Your task to perform on an android device: Open sound settings Image 0: 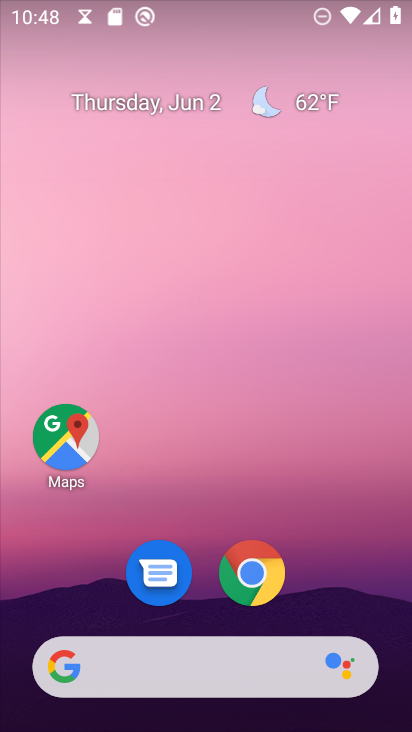
Step 0: drag from (344, 584) to (237, 167)
Your task to perform on an android device: Open sound settings Image 1: 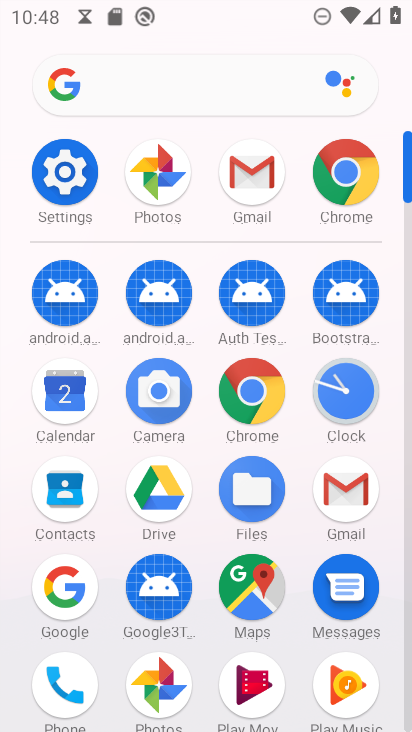
Step 1: click (67, 170)
Your task to perform on an android device: Open sound settings Image 2: 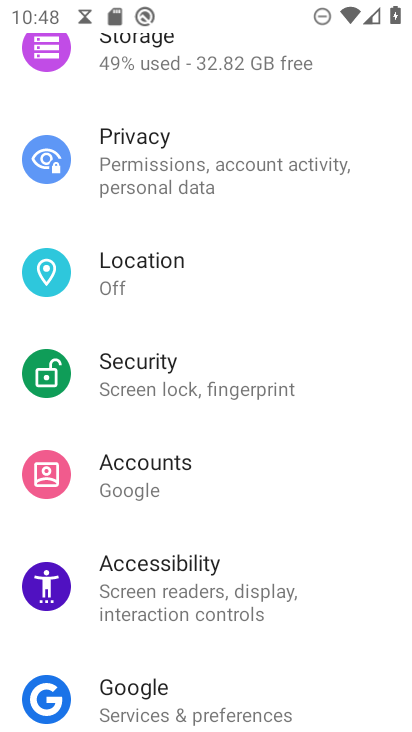
Step 2: drag from (166, 547) to (235, 422)
Your task to perform on an android device: Open sound settings Image 3: 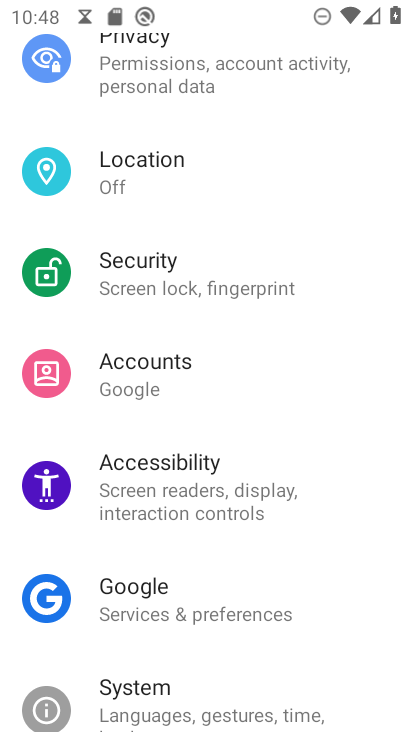
Step 3: drag from (222, 561) to (287, 406)
Your task to perform on an android device: Open sound settings Image 4: 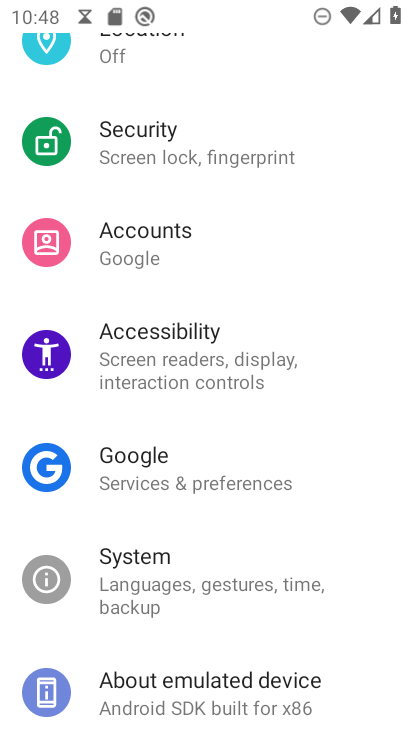
Step 4: drag from (255, 305) to (265, 413)
Your task to perform on an android device: Open sound settings Image 5: 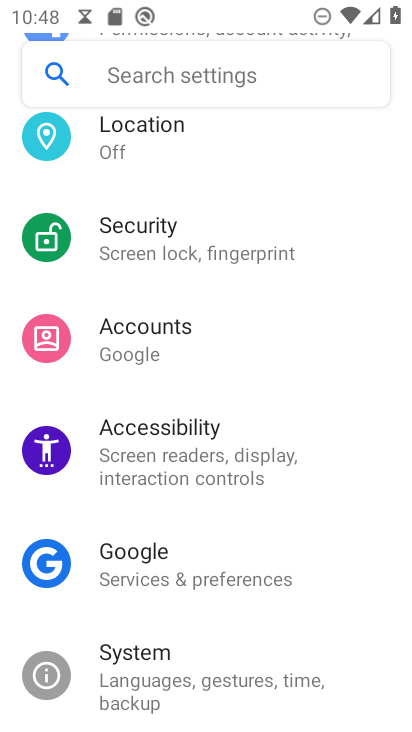
Step 5: drag from (234, 329) to (282, 432)
Your task to perform on an android device: Open sound settings Image 6: 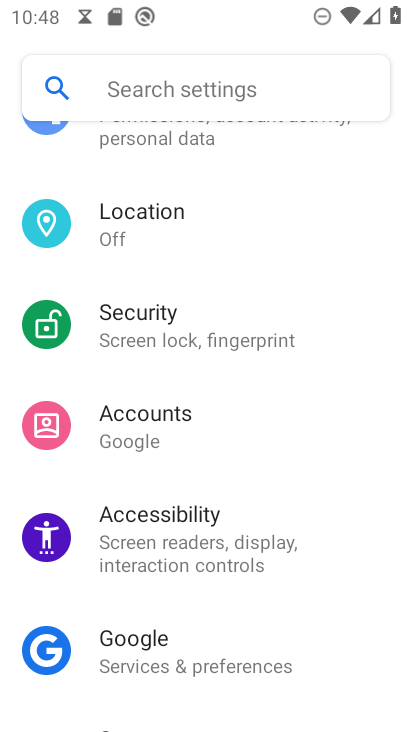
Step 6: drag from (222, 300) to (278, 404)
Your task to perform on an android device: Open sound settings Image 7: 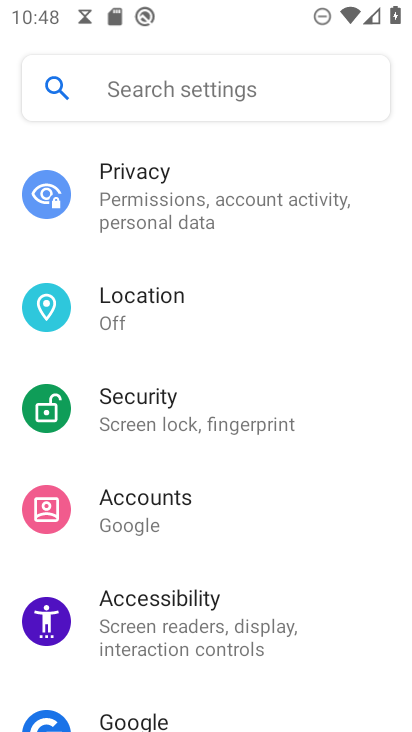
Step 7: drag from (228, 277) to (275, 394)
Your task to perform on an android device: Open sound settings Image 8: 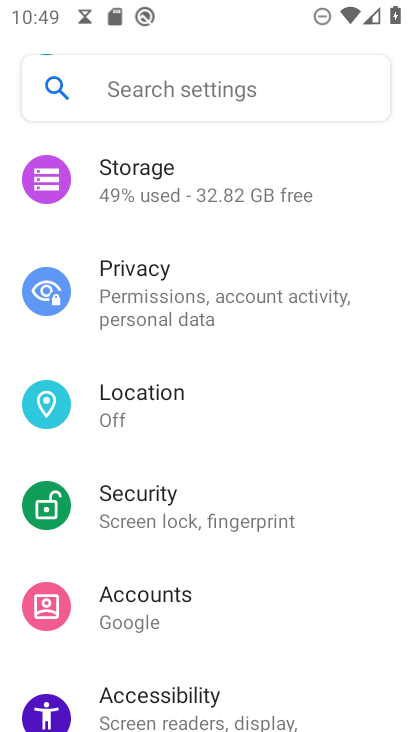
Step 8: drag from (218, 242) to (282, 365)
Your task to perform on an android device: Open sound settings Image 9: 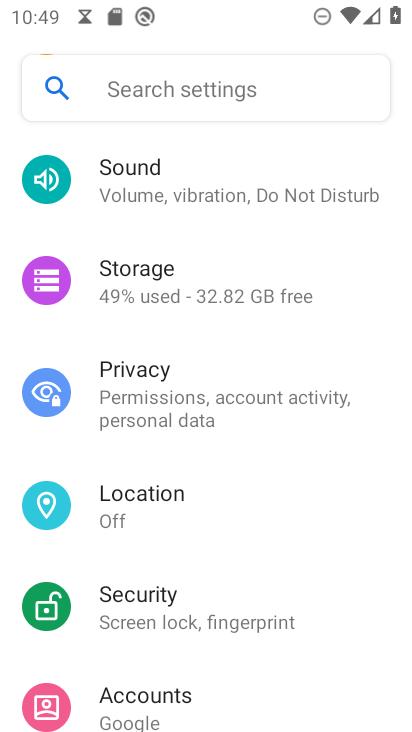
Step 9: drag from (243, 256) to (298, 355)
Your task to perform on an android device: Open sound settings Image 10: 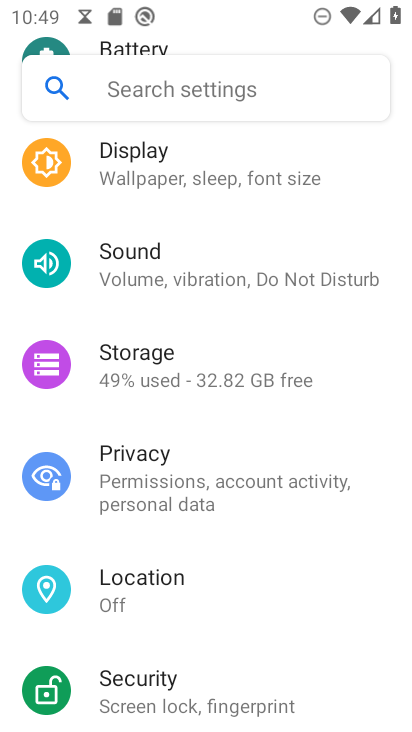
Step 10: click (157, 246)
Your task to perform on an android device: Open sound settings Image 11: 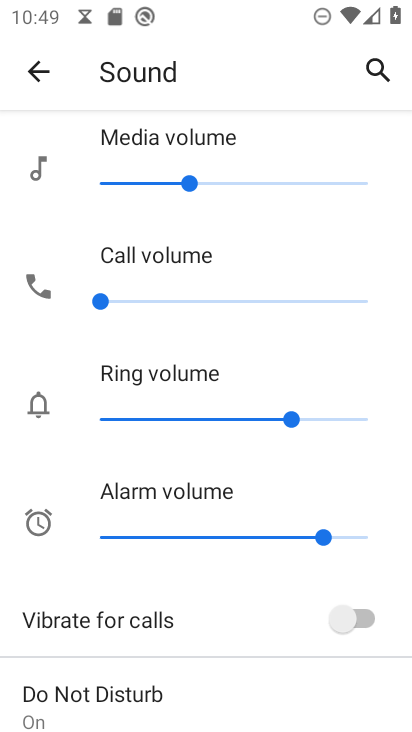
Step 11: task complete